Your task to perform on an android device: turn off airplane mode Image 0: 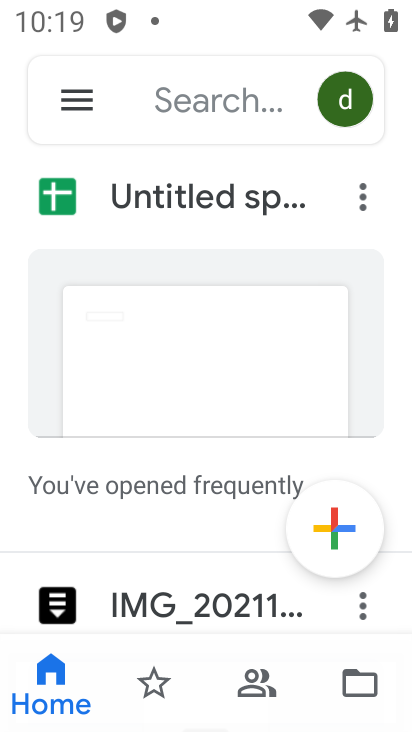
Step 0: press home button
Your task to perform on an android device: turn off airplane mode Image 1: 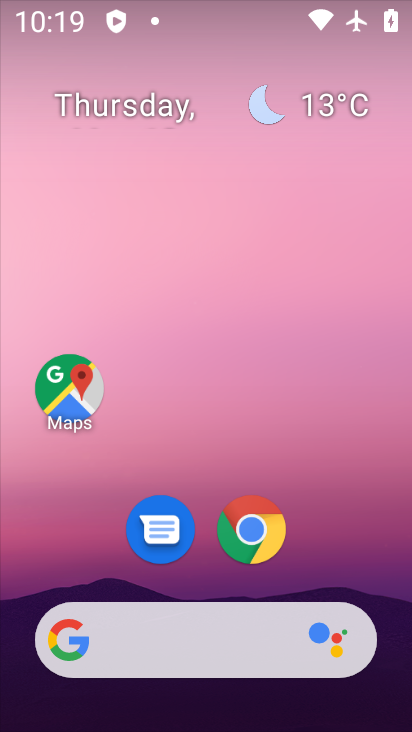
Step 1: drag from (201, 582) to (215, 50)
Your task to perform on an android device: turn off airplane mode Image 2: 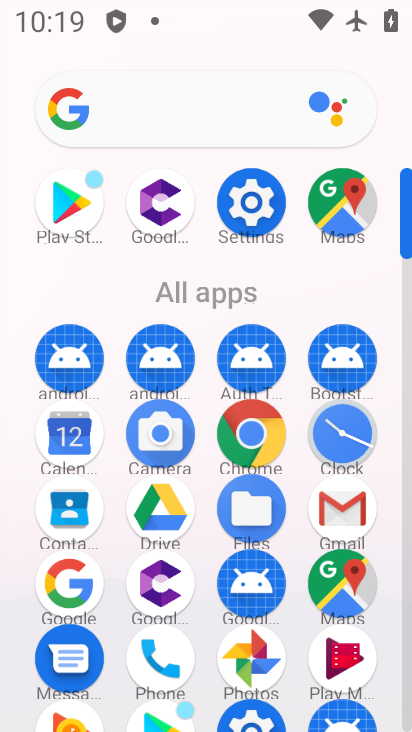
Step 2: click (234, 203)
Your task to perform on an android device: turn off airplane mode Image 3: 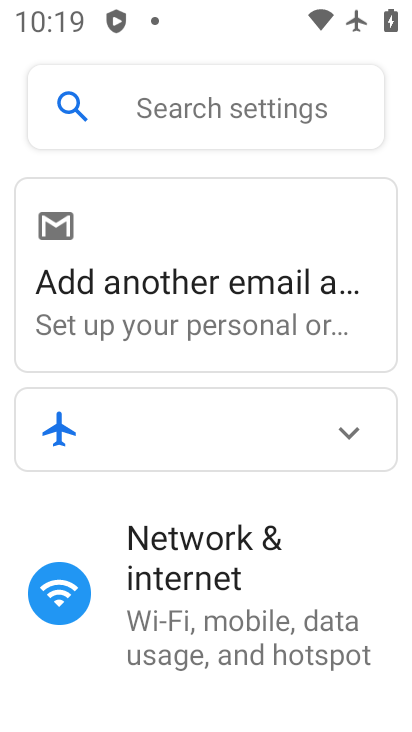
Step 3: click (228, 590)
Your task to perform on an android device: turn off airplane mode Image 4: 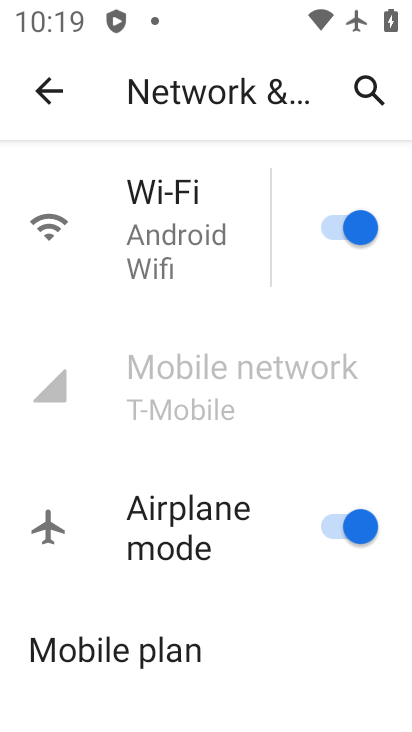
Step 4: click (325, 524)
Your task to perform on an android device: turn off airplane mode Image 5: 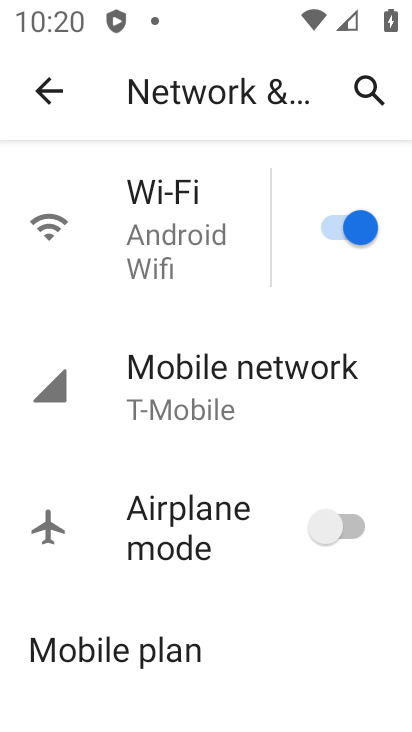
Step 5: task complete